Your task to perform on an android device: Go to CNN.com Image 0: 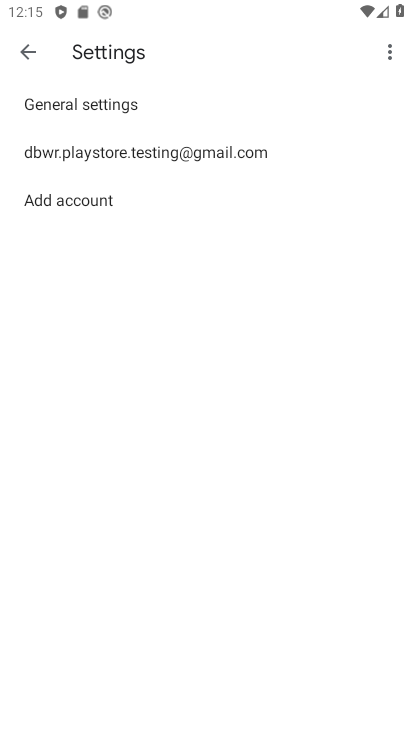
Step 0: press home button
Your task to perform on an android device: Go to CNN.com Image 1: 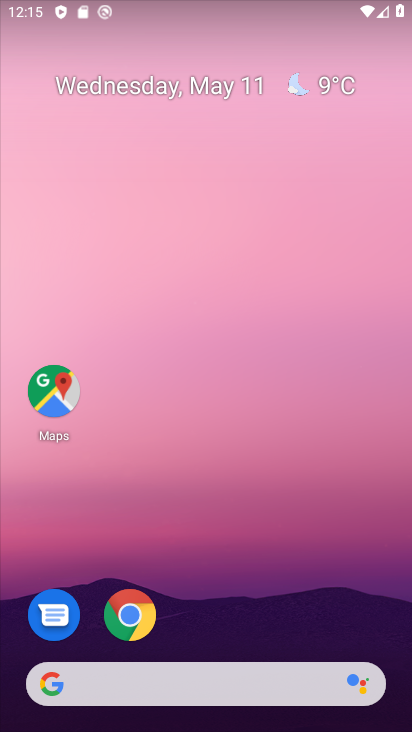
Step 1: click (159, 613)
Your task to perform on an android device: Go to CNN.com Image 2: 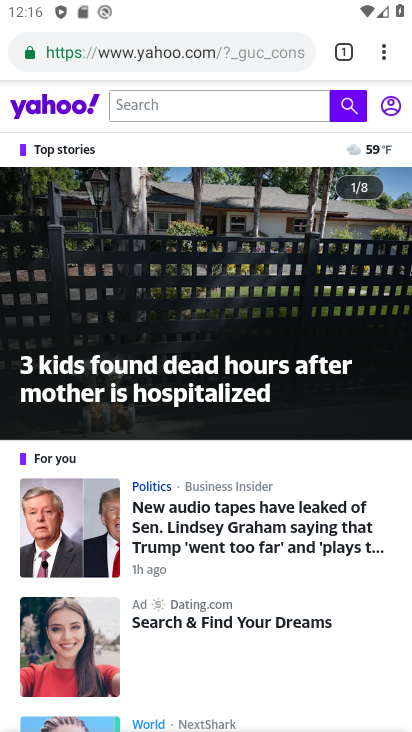
Step 2: click (233, 47)
Your task to perform on an android device: Go to CNN.com Image 3: 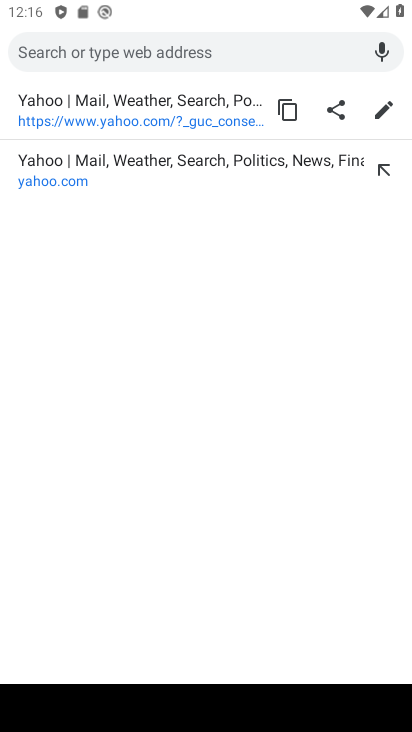
Step 3: type "cnn"
Your task to perform on an android device: Go to CNN.com Image 4: 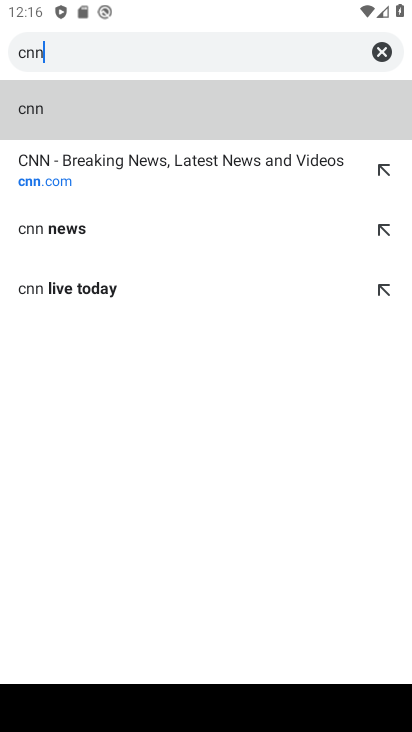
Step 4: click (200, 122)
Your task to perform on an android device: Go to CNN.com Image 5: 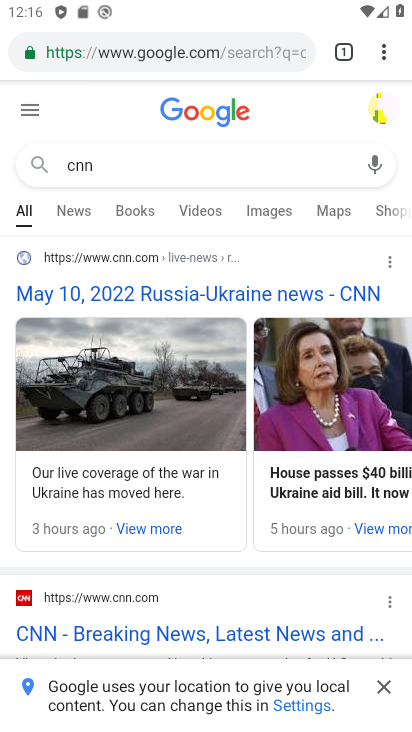
Step 5: click (77, 620)
Your task to perform on an android device: Go to CNN.com Image 6: 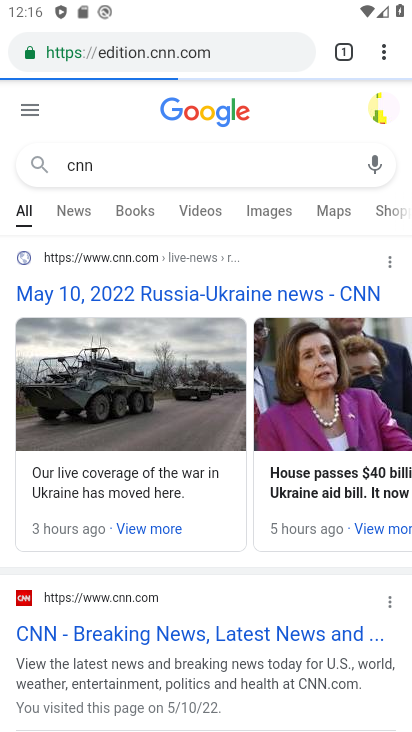
Step 6: task complete